Your task to perform on an android device: What is the recent news? Image 0: 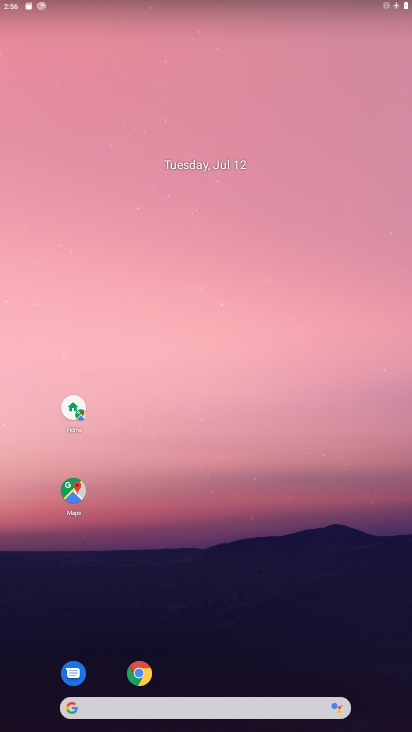
Step 0: drag from (227, 676) to (192, 289)
Your task to perform on an android device: What is the recent news? Image 1: 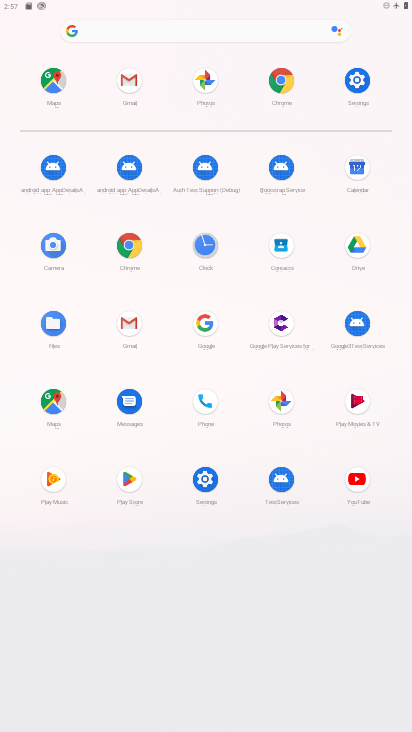
Step 1: click (275, 71)
Your task to perform on an android device: What is the recent news? Image 2: 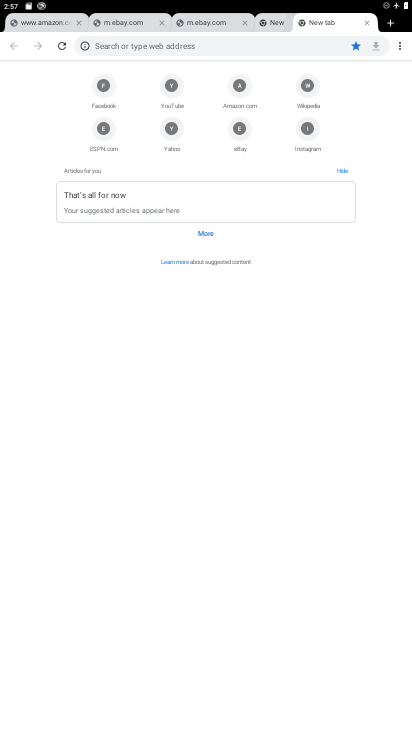
Step 2: click (163, 44)
Your task to perform on an android device: What is the recent news? Image 3: 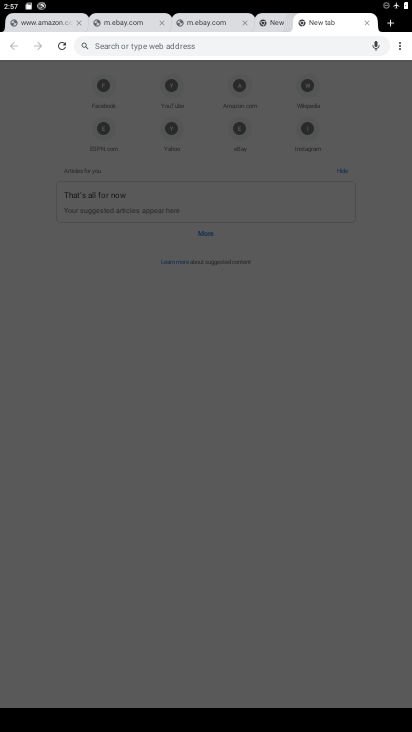
Step 3: type "What is the recent news "
Your task to perform on an android device: What is the recent news? Image 4: 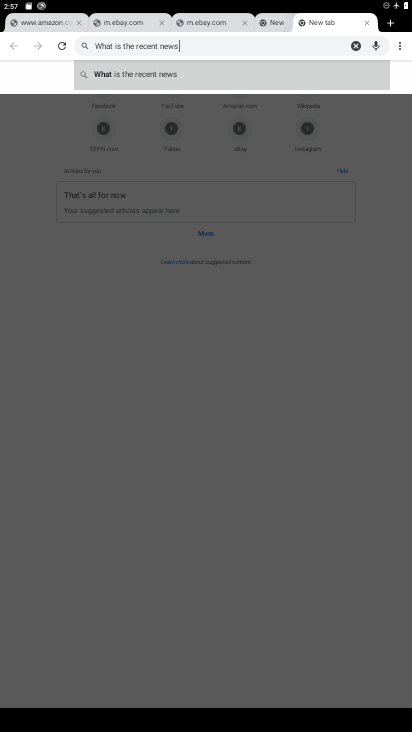
Step 4: click (205, 74)
Your task to perform on an android device: What is the recent news? Image 5: 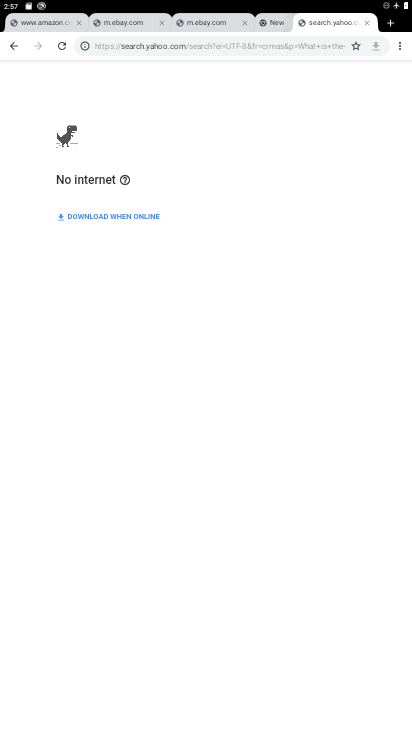
Step 5: task complete